Your task to perform on an android device: Open Google Maps Image 0: 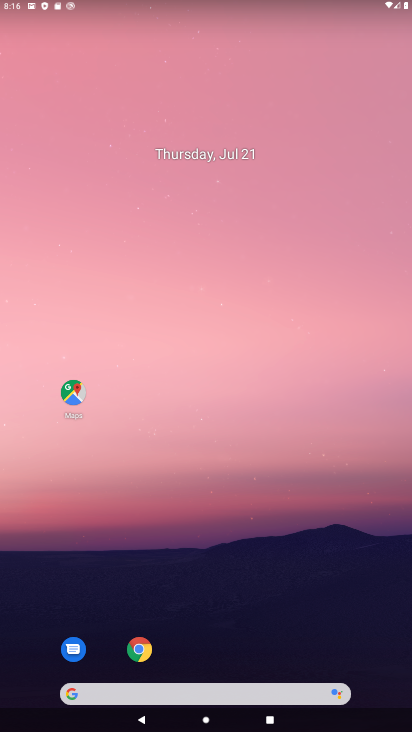
Step 0: click (65, 384)
Your task to perform on an android device: Open Google Maps Image 1: 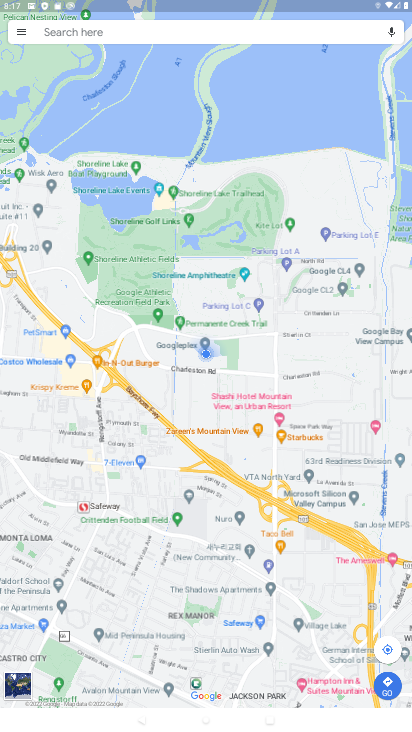
Step 1: task complete